Your task to perform on an android device: open app "Messenger Lite" (install if not already installed), go to login, and select forgot password Image 0: 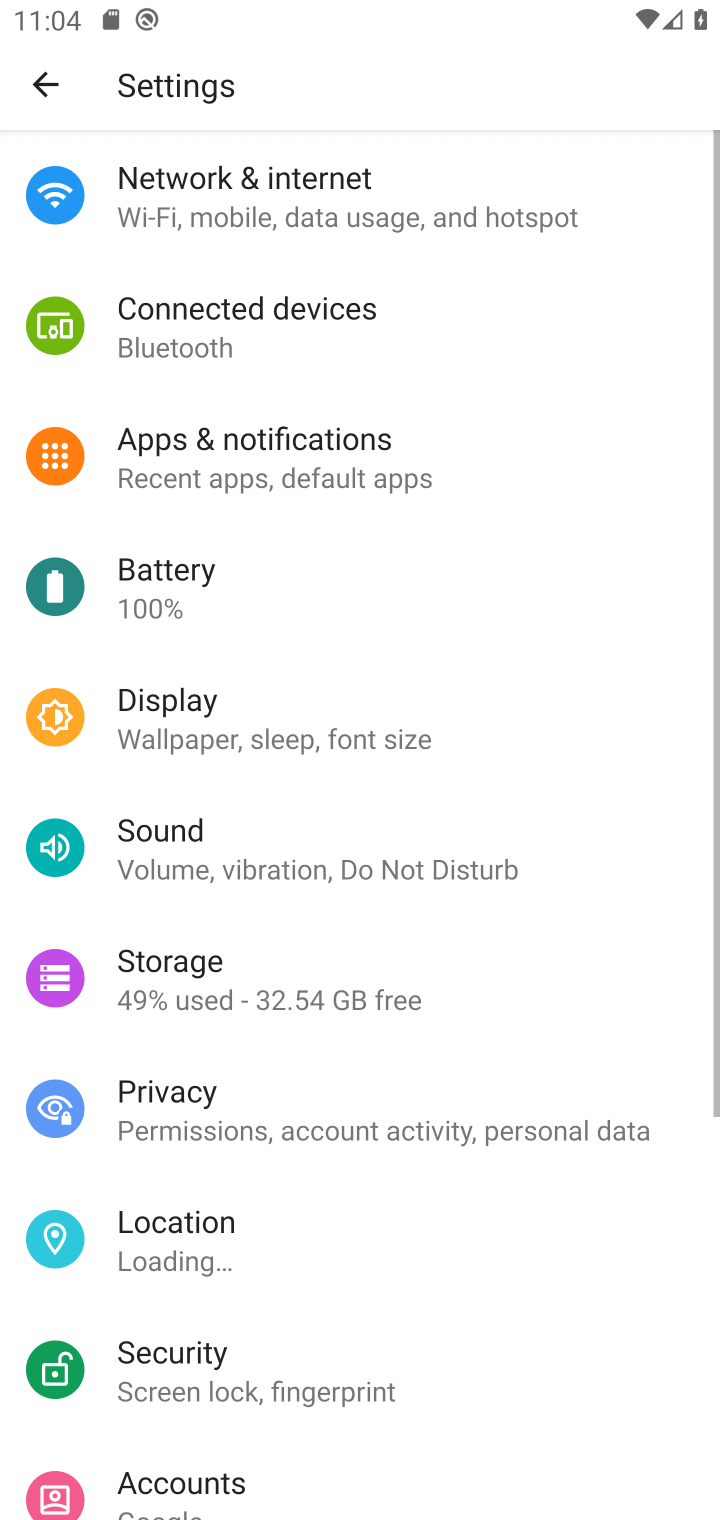
Step 0: press home button
Your task to perform on an android device: open app "Messenger Lite" (install if not already installed), go to login, and select forgot password Image 1: 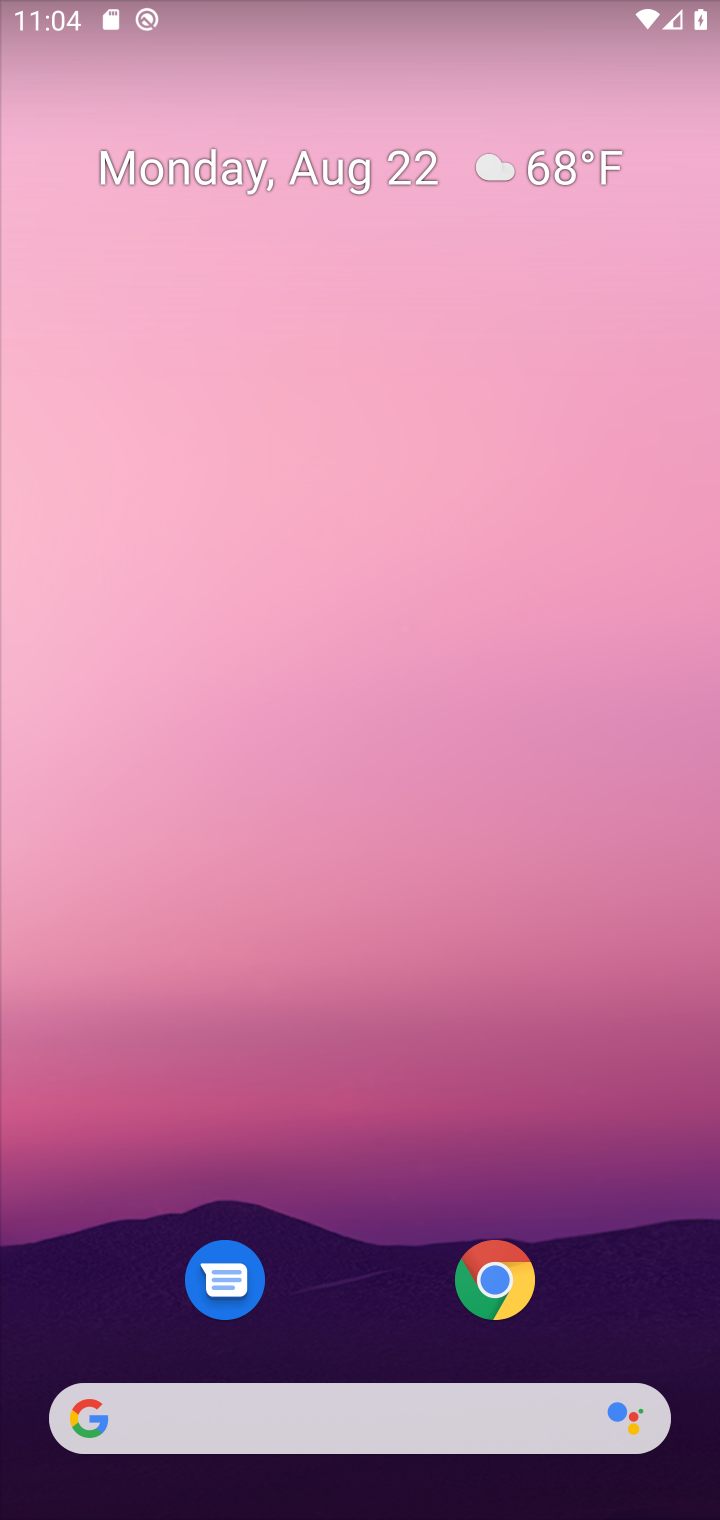
Step 1: drag from (334, 1281) to (305, 7)
Your task to perform on an android device: open app "Messenger Lite" (install if not already installed), go to login, and select forgot password Image 2: 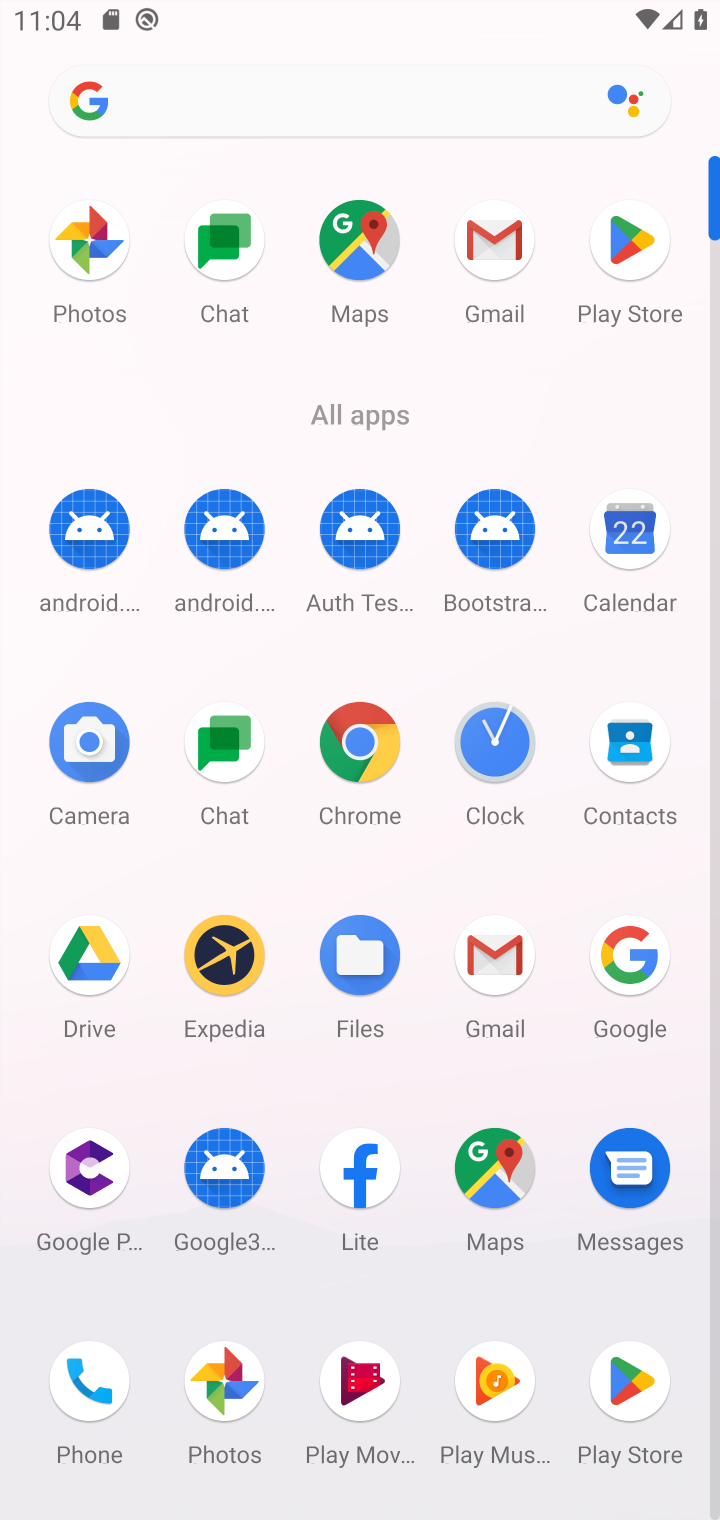
Step 2: click (628, 317)
Your task to perform on an android device: open app "Messenger Lite" (install if not already installed), go to login, and select forgot password Image 3: 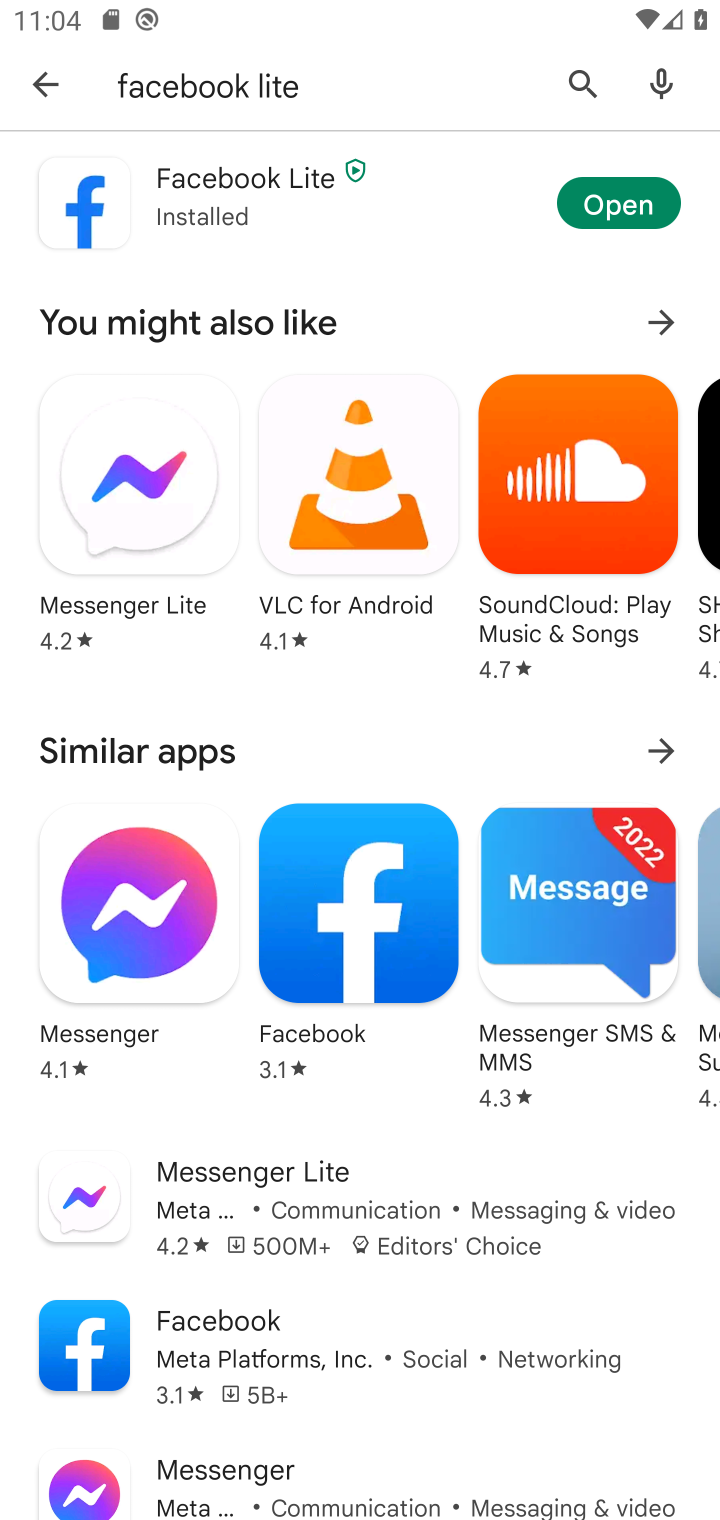
Step 3: click (585, 80)
Your task to perform on an android device: open app "Messenger Lite" (install if not already installed), go to login, and select forgot password Image 4: 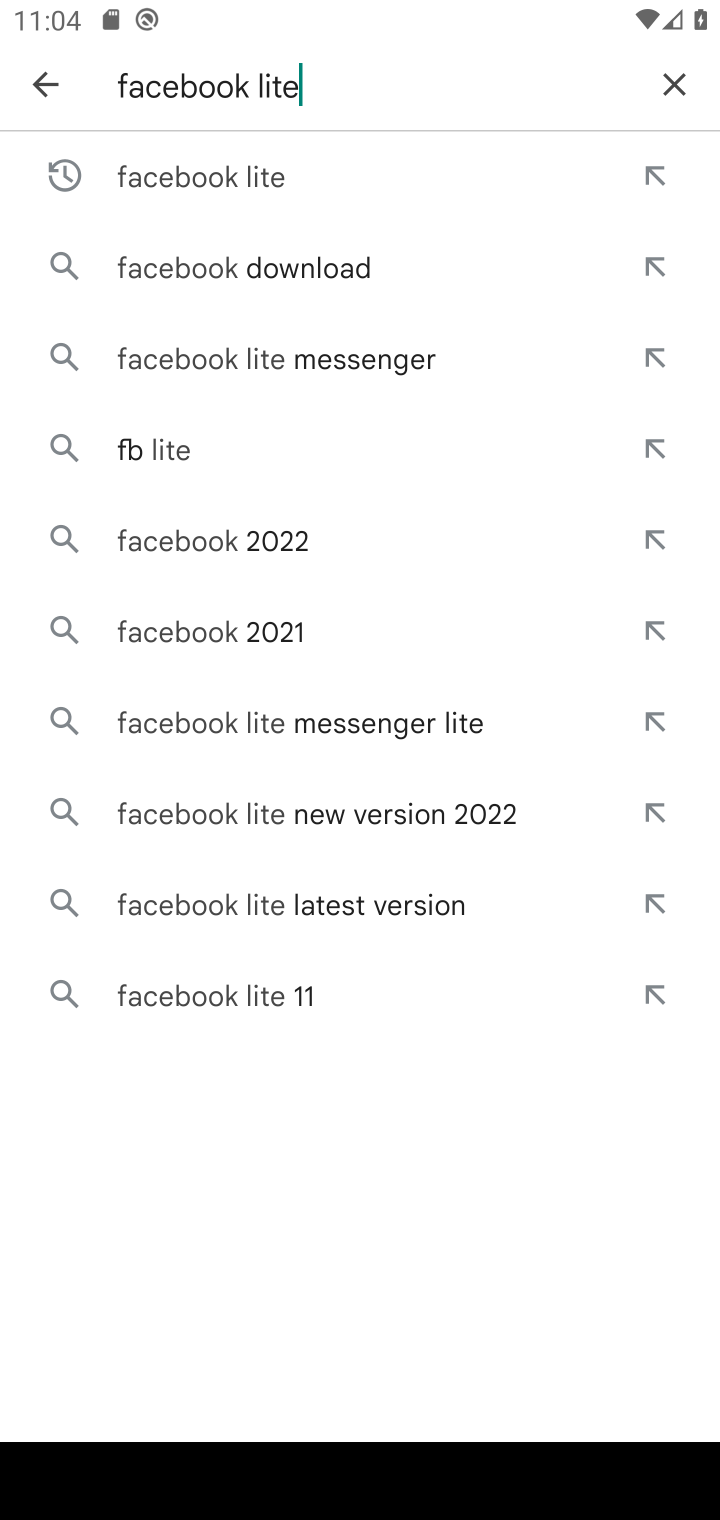
Step 4: click (672, 86)
Your task to perform on an android device: open app "Messenger Lite" (install if not already installed), go to login, and select forgot password Image 5: 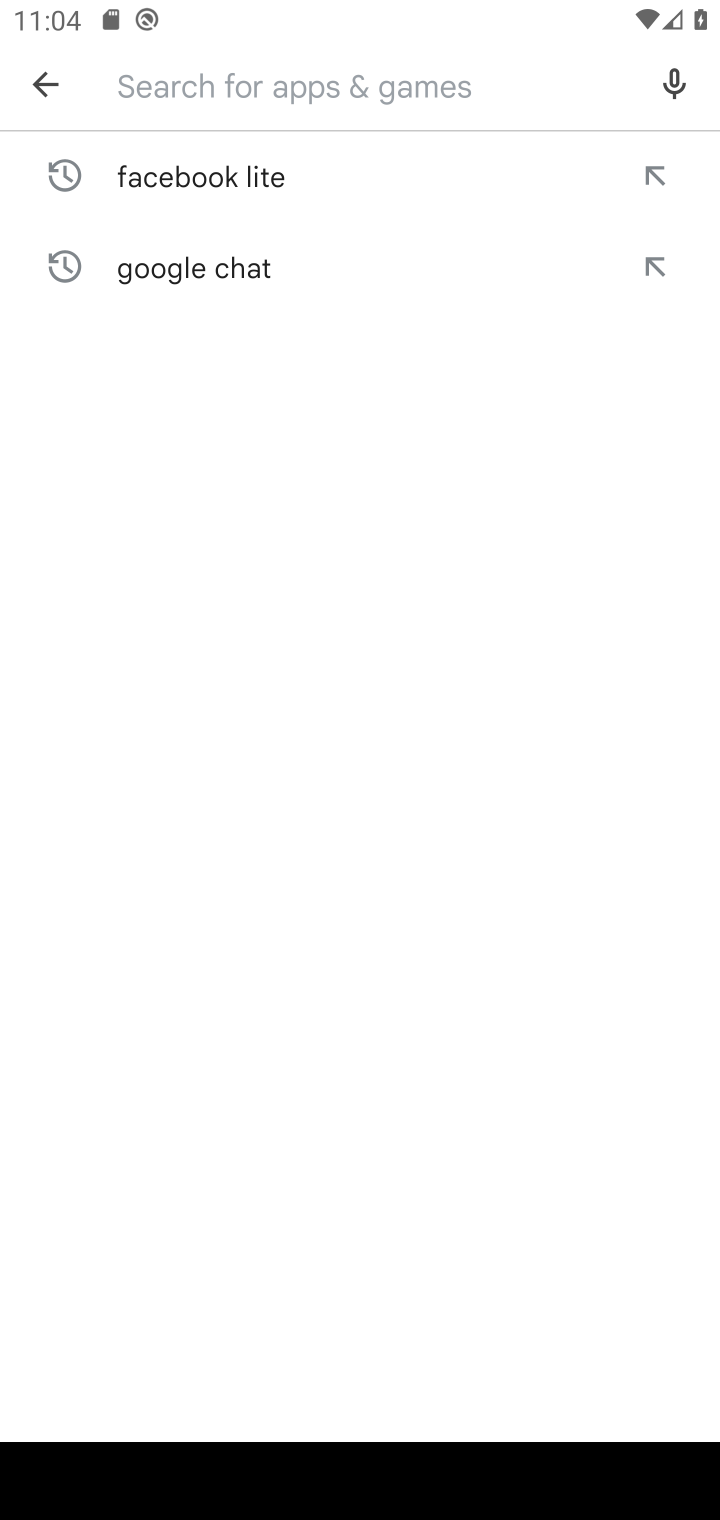
Step 5: type "Messenger Lite"
Your task to perform on an android device: open app "Messenger Lite" (install if not already installed), go to login, and select forgot password Image 6: 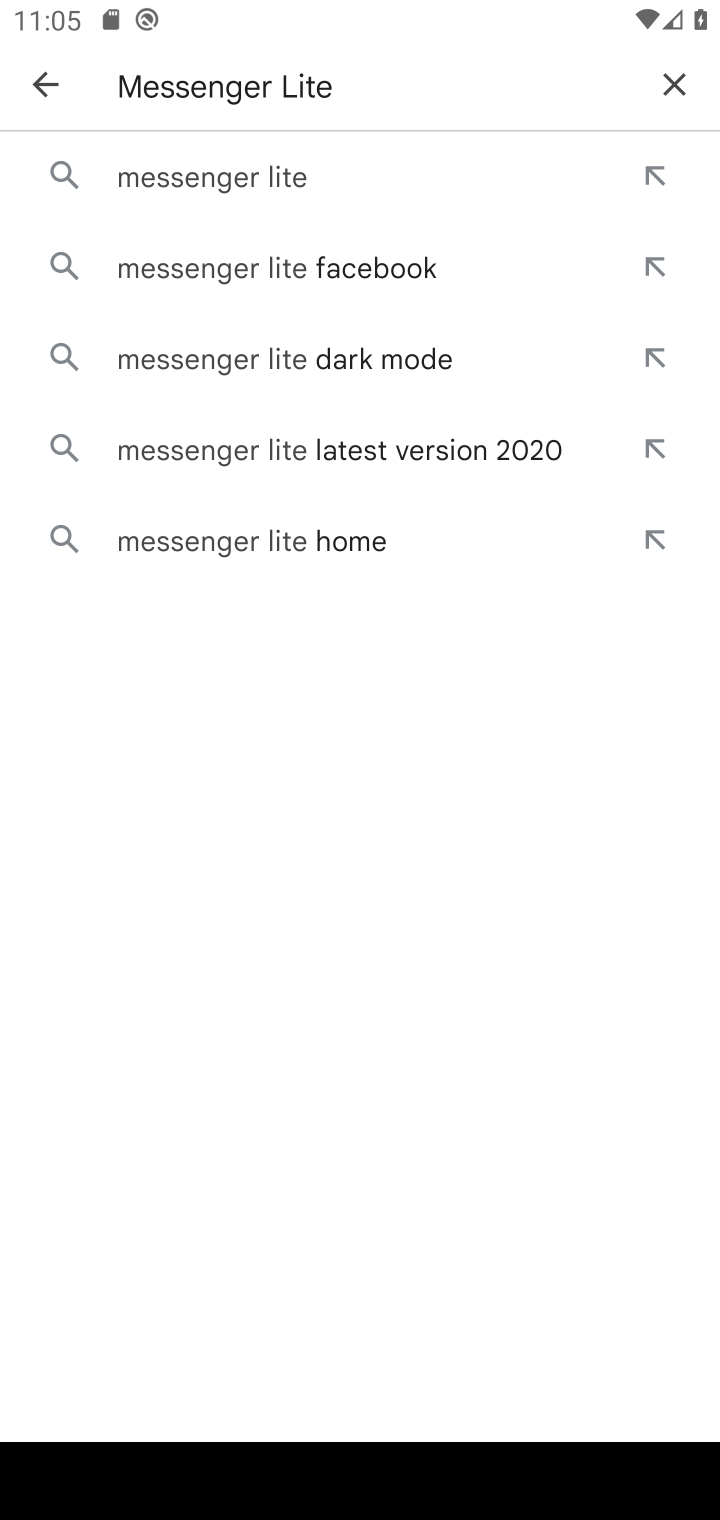
Step 6: click (278, 178)
Your task to perform on an android device: open app "Messenger Lite" (install if not already installed), go to login, and select forgot password Image 7: 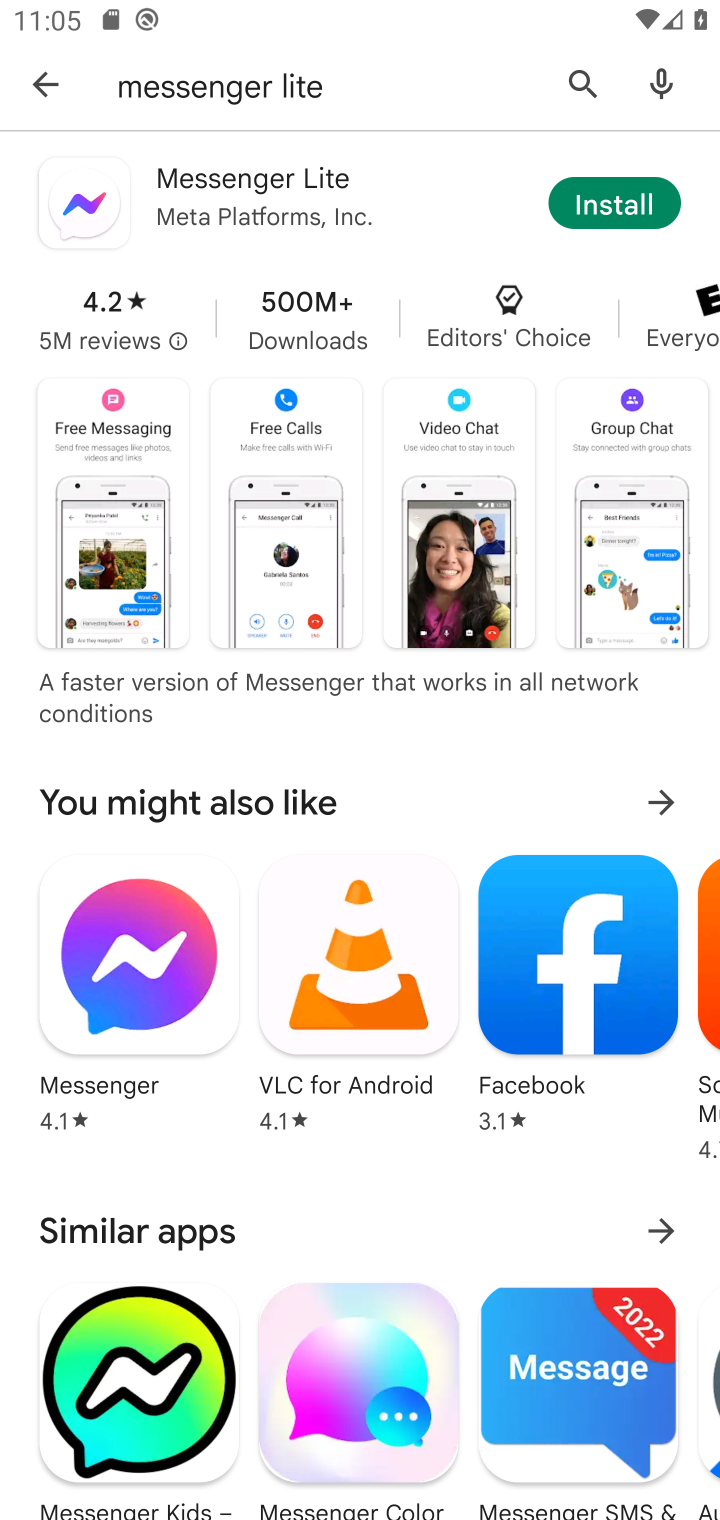
Step 7: click (636, 206)
Your task to perform on an android device: open app "Messenger Lite" (install if not already installed), go to login, and select forgot password Image 8: 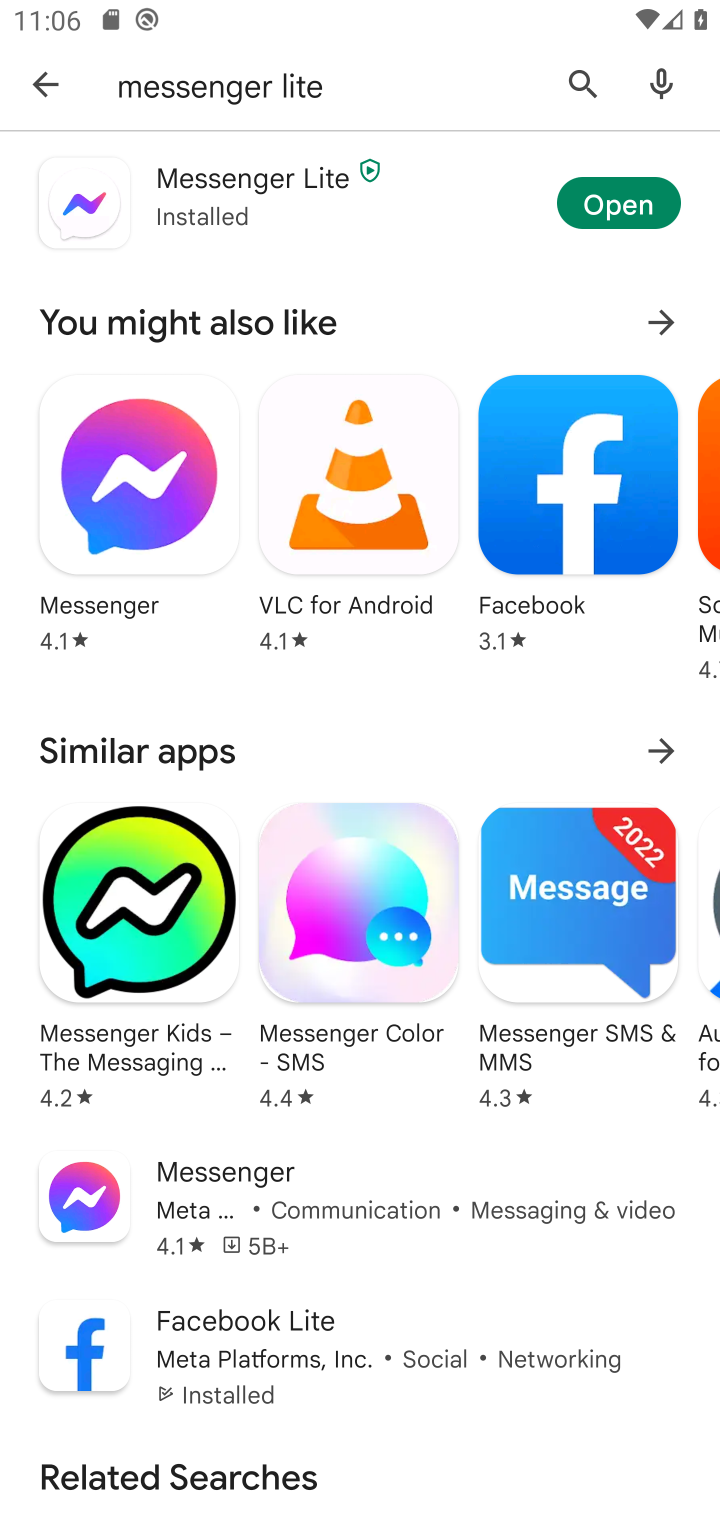
Step 8: click (636, 206)
Your task to perform on an android device: open app "Messenger Lite" (install if not already installed), go to login, and select forgot password Image 9: 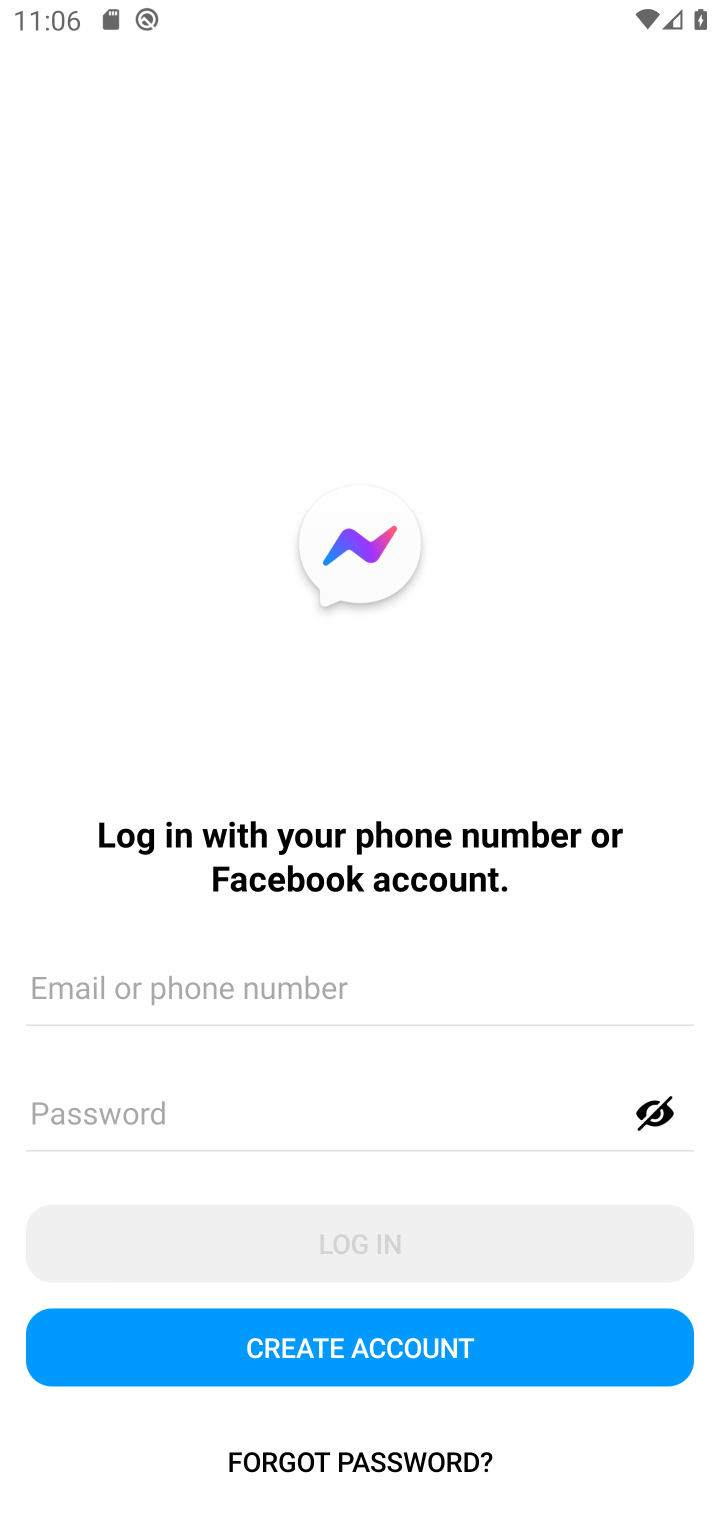
Step 9: click (310, 1461)
Your task to perform on an android device: open app "Messenger Lite" (install if not already installed), go to login, and select forgot password Image 10: 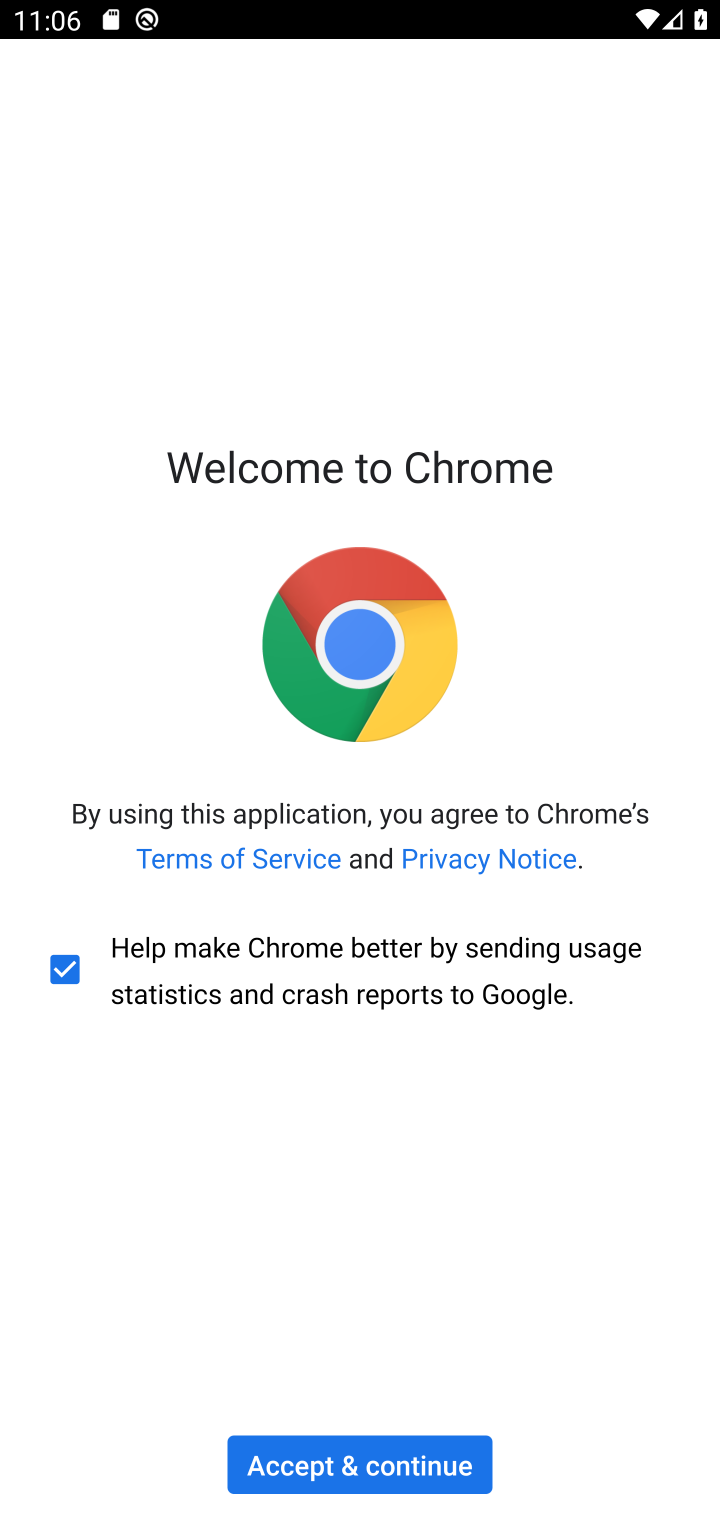
Step 10: click (327, 1456)
Your task to perform on an android device: open app "Messenger Lite" (install if not already installed), go to login, and select forgot password Image 11: 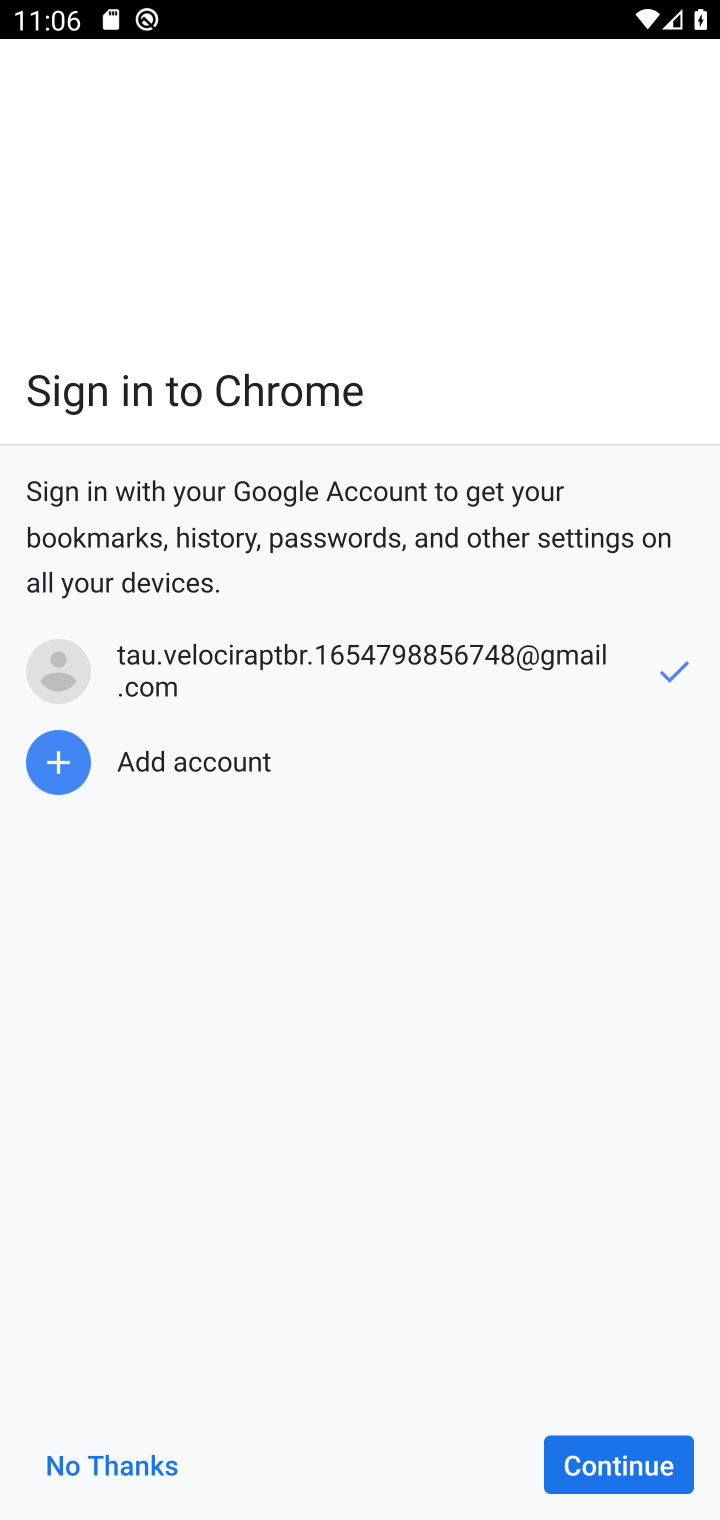
Step 11: click (615, 1459)
Your task to perform on an android device: open app "Messenger Lite" (install if not already installed), go to login, and select forgot password Image 12: 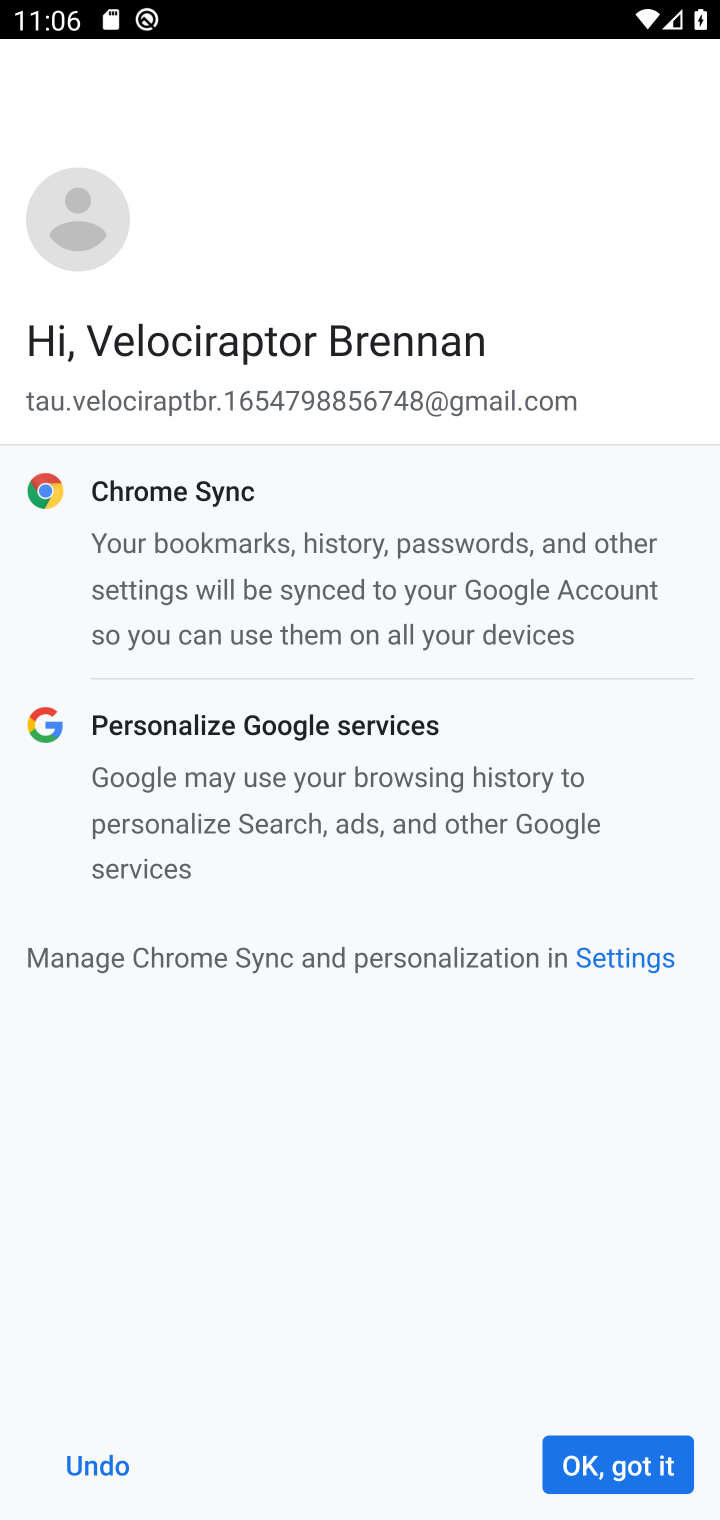
Step 12: click (615, 1459)
Your task to perform on an android device: open app "Messenger Lite" (install if not already installed), go to login, and select forgot password Image 13: 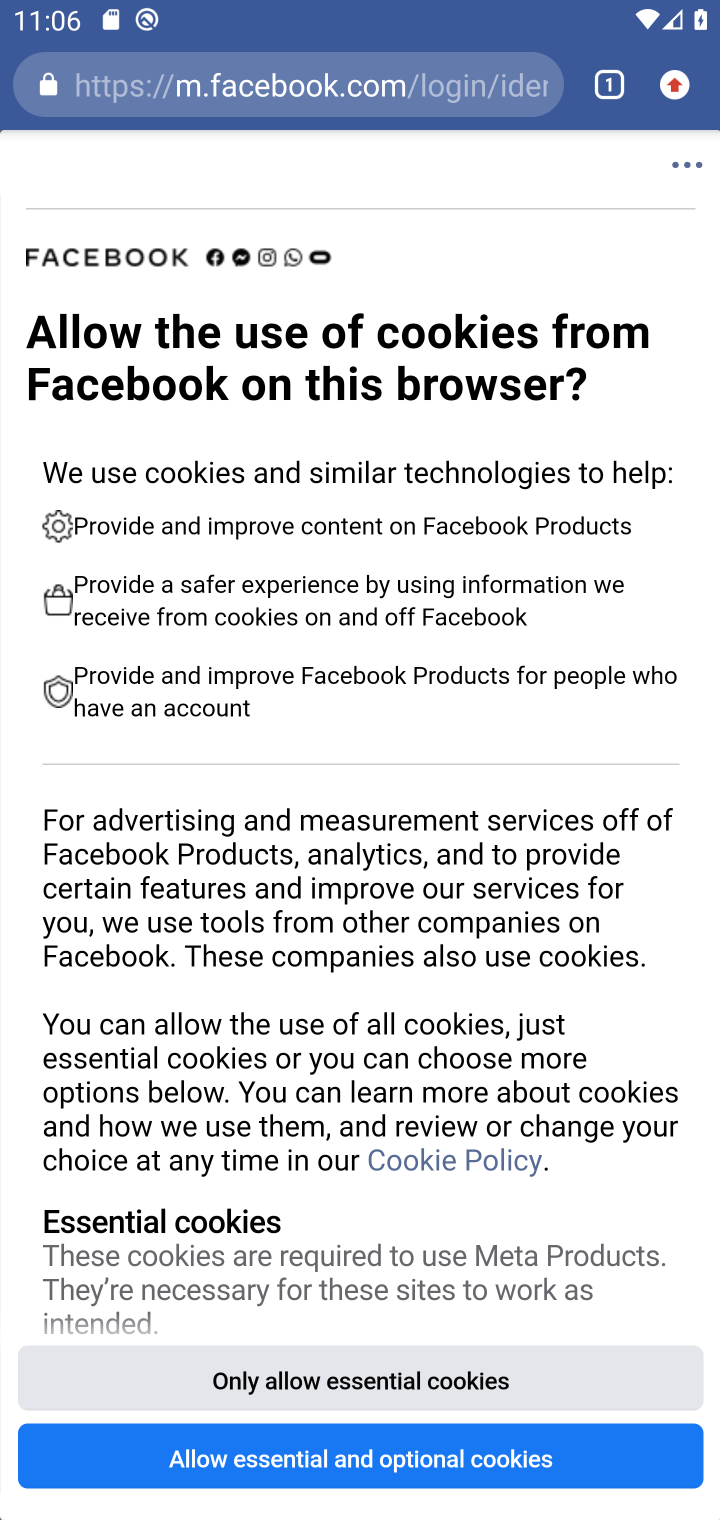
Step 13: task complete